Your task to perform on an android device: Open Google Chrome Image 0: 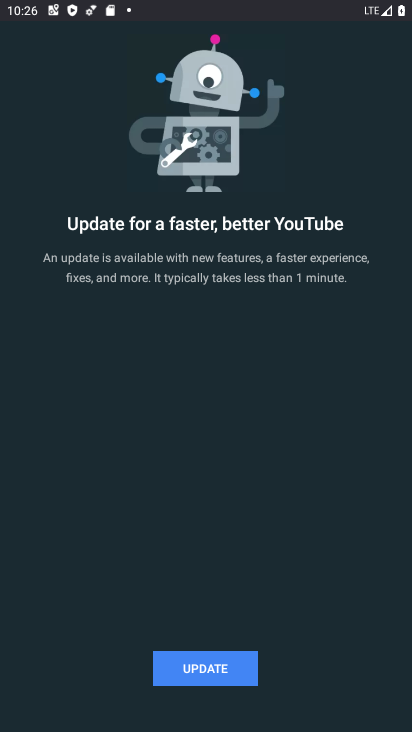
Step 0: press home button
Your task to perform on an android device: Open Google Chrome Image 1: 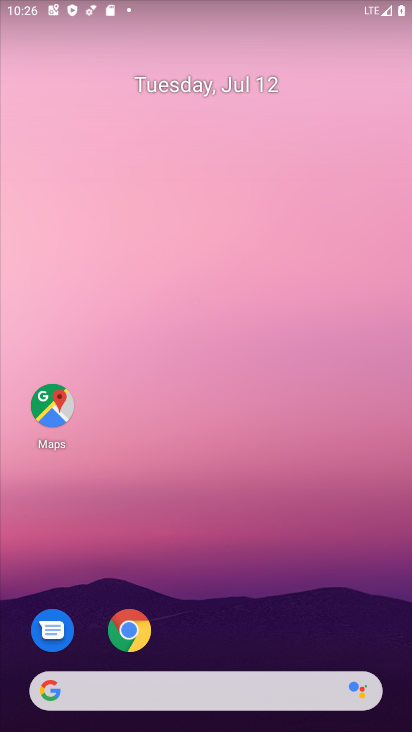
Step 1: click (128, 628)
Your task to perform on an android device: Open Google Chrome Image 2: 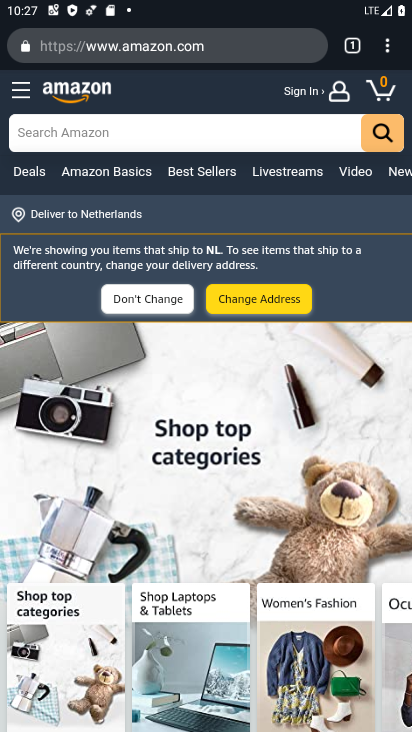
Step 2: task complete